Your task to perform on an android device: open chrome and create a bookmark for the current page Image 0: 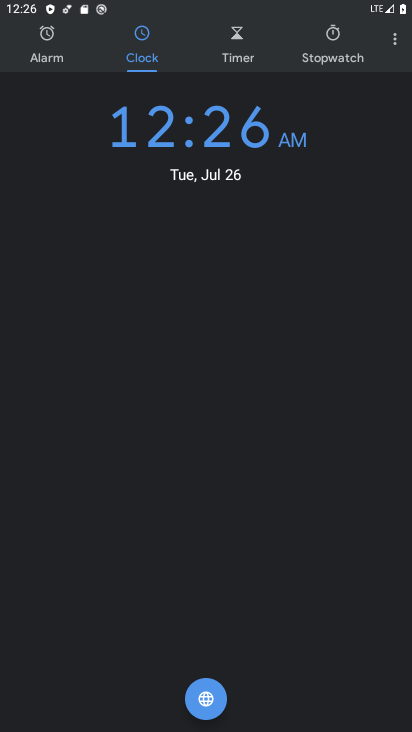
Step 0: press home button
Your task to perform on an android device: open chrome and create a bookmark for the current page Image 1: 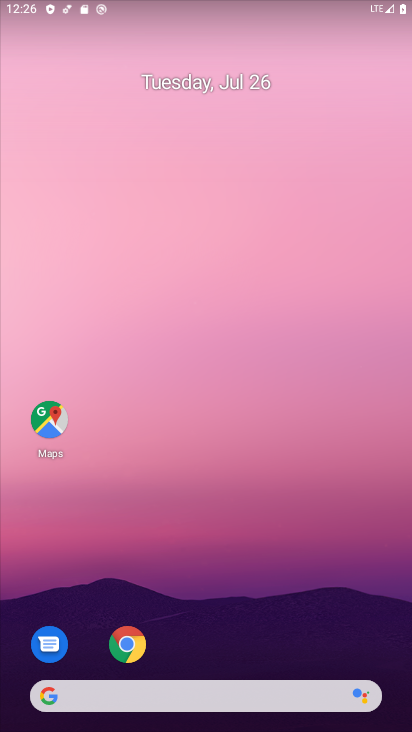
Step 1: click (135, 644)
Your task to perform on an android device: open chrome and create a bookmark for the current page Image 2: 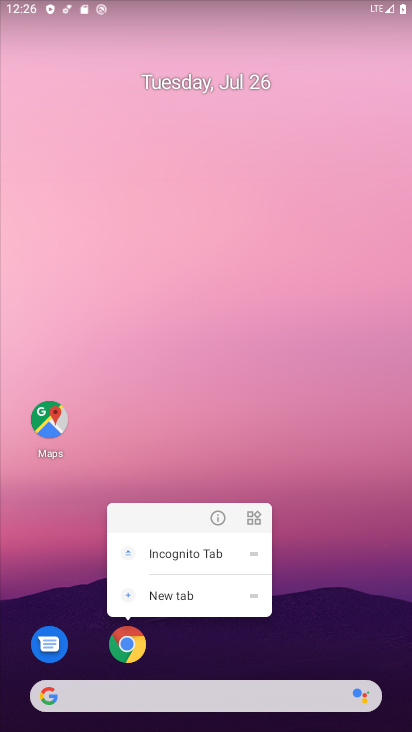
Step 2: click (126, 655)
Your task to perform on an android device: open chrome and create a bookmark for the current page Image 3: 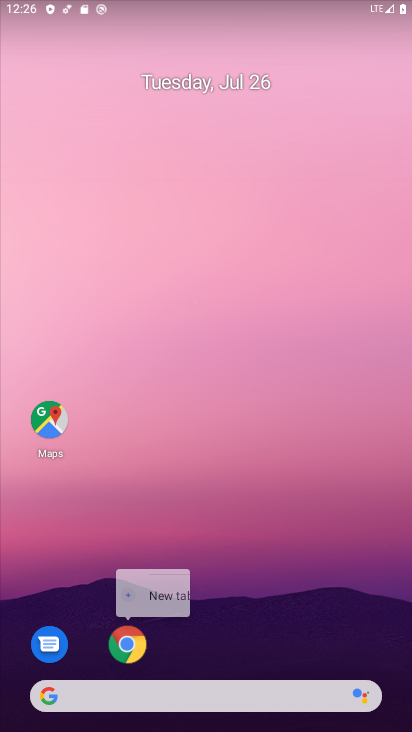
Step 3: click (126, 655)
Your task to perform on an android device: open chrome and create a bookmark for the current page Image 4: 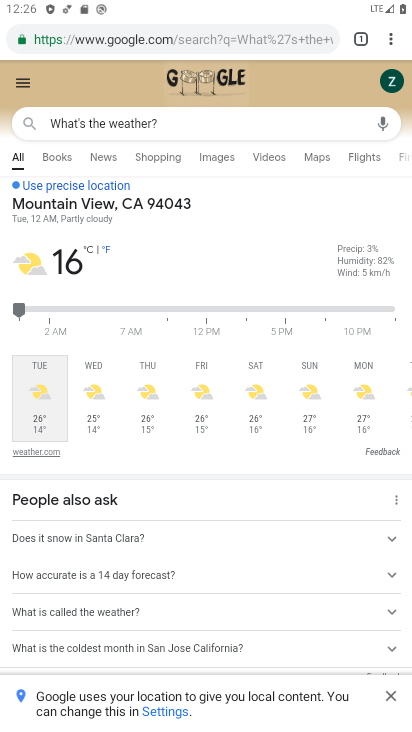
Step 4: click (386, 37)
Your task to perform on an android device: open chrome and create a bookmark for the current page Image 5: 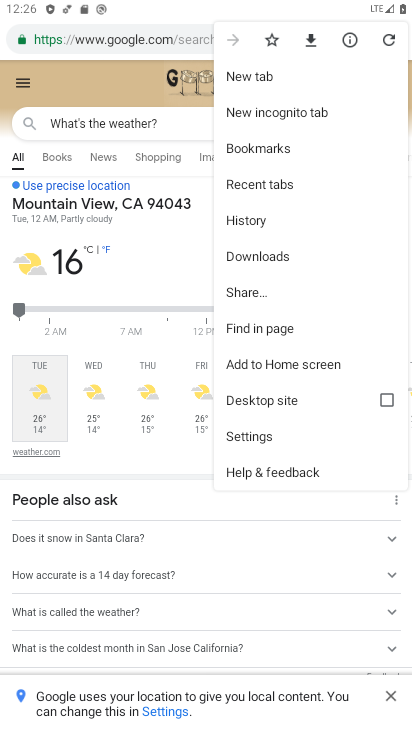
Step 5: click (265, 40)
Your task to perform on an android device: open chrome and create a bookmark for the current page Image 6: 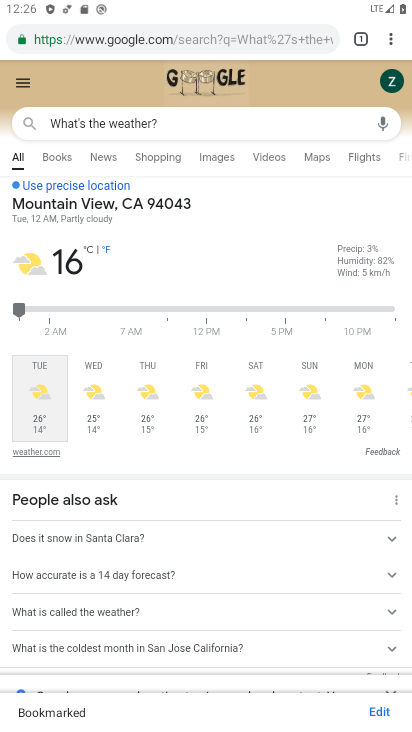
Step 6: task complete